Your task to perform on an android device: allow notifications from all sites in the chrome app Image 0: 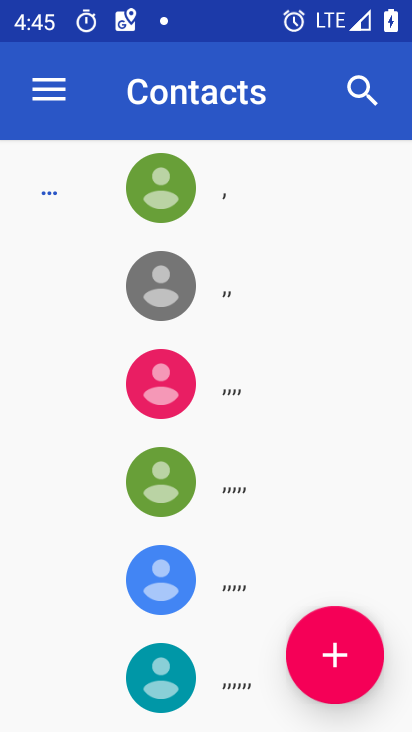
Step 0: press back button
Your task to perform on an android device: allow notifications from all sites in the chrome app Image 1: 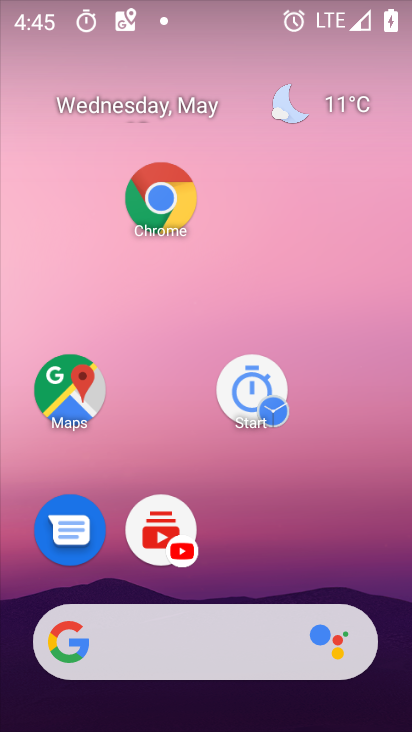
Step 1: drag from (309, 724) to (219, 336)
Your task to perform on an android device: allow notifications from all sites in the chrome app Image 2: 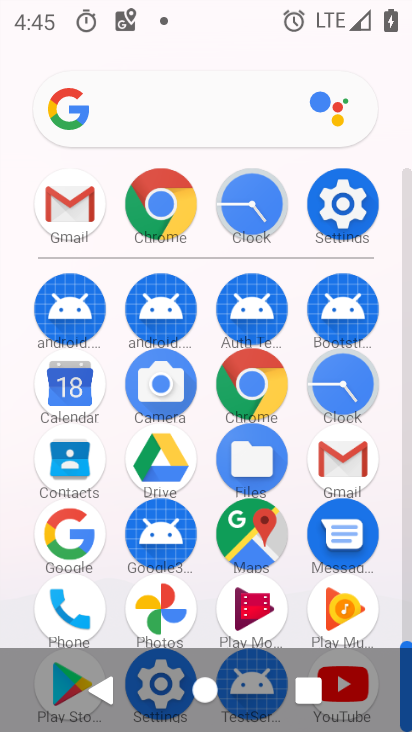
Step 2: click (242, 387)
Your task to perform on an android device: allow notifications from all sites in the chrome app Image 3: 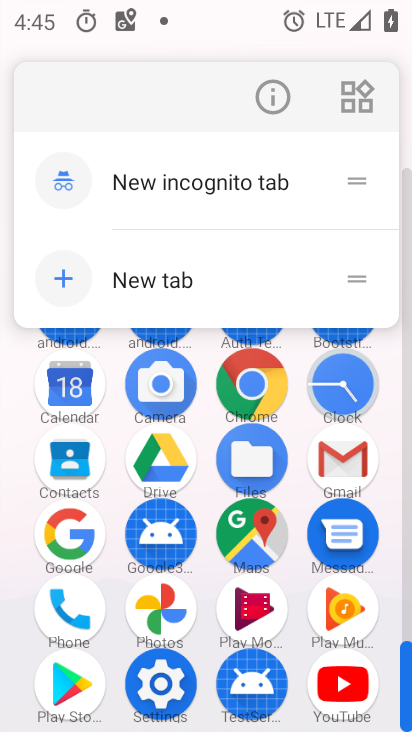
Step 3: click (243, 380)
Your task to perform on an android device: allow notifications from all sites in the chrome app Image 4: 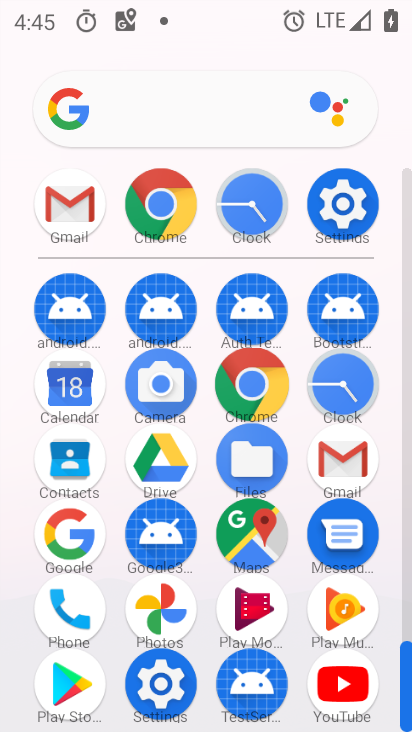
Step 4: click (247, 377)
Your task to perform on an android device: allow notifications from all sites in the chrome app Image 5: 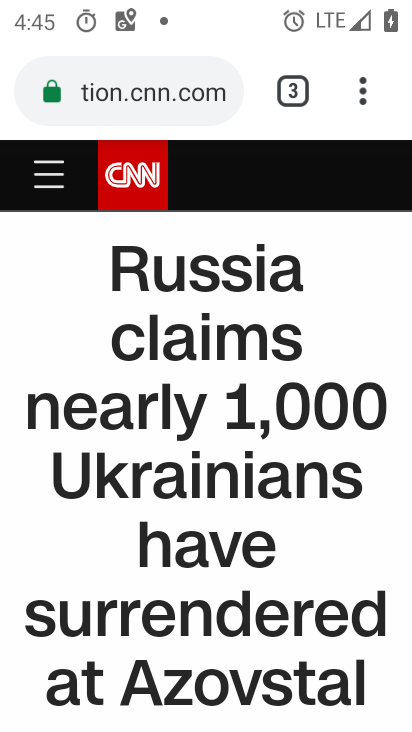
Step 5: drag from (356, 91) to (88, 566)
Your task to perform on an android device: allow notifications from all sites in the chrome app Image 6: 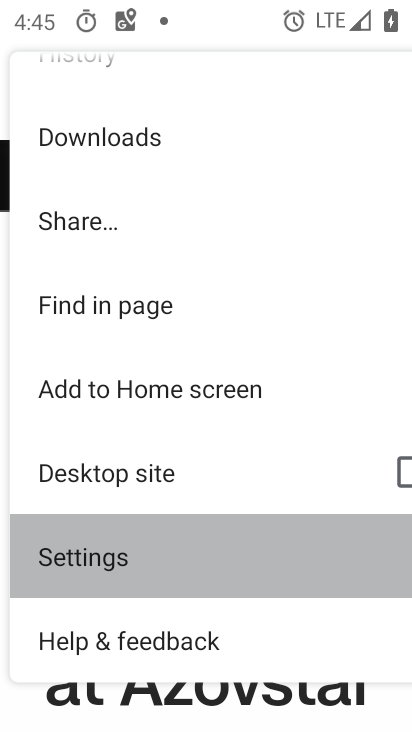
Step 6: click (93, 562)
Your task to perform on an android device: allow notifications from all sites in the chrome app Image 7: 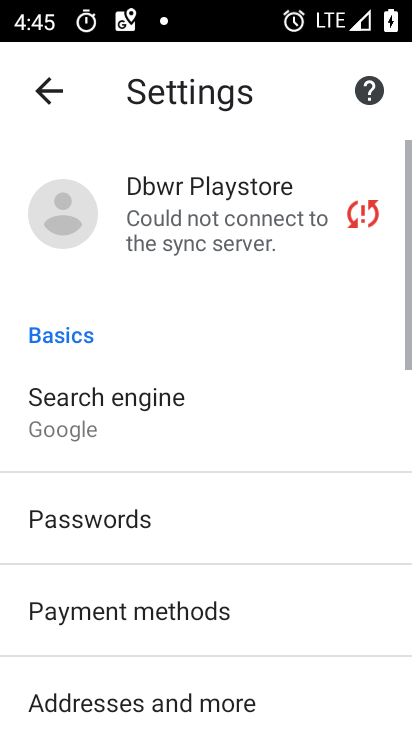
Step 7: drag from (168, 560) to (153, 97)
Your task to perform on an android device: allow notifications from all sites in the chrome app Image 8: 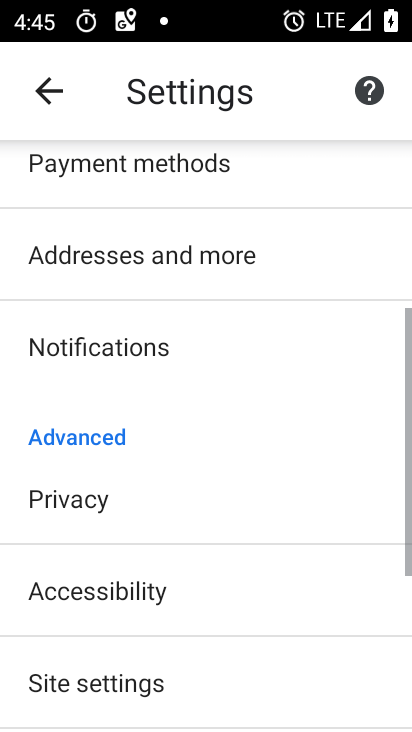
Step 8: drag from (206, 516) to (209, 77)
Your task to perform on an android device: allow notifications from all sites in the chrome app Image 9: 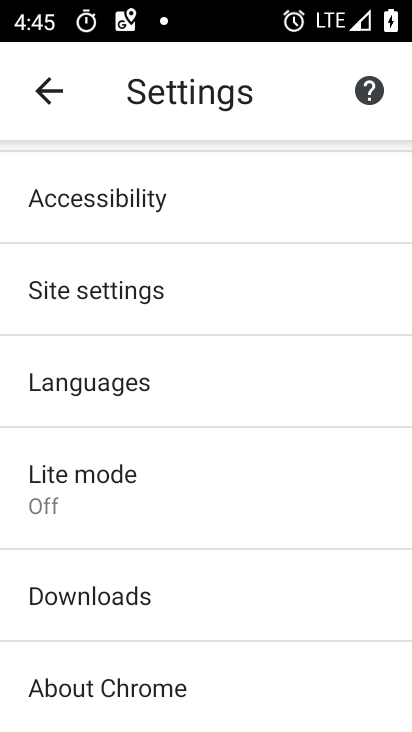
Step 9: click (71, 292)
Your task to perform on an android device: allow notifications from all sites in the chrome app Image 10: 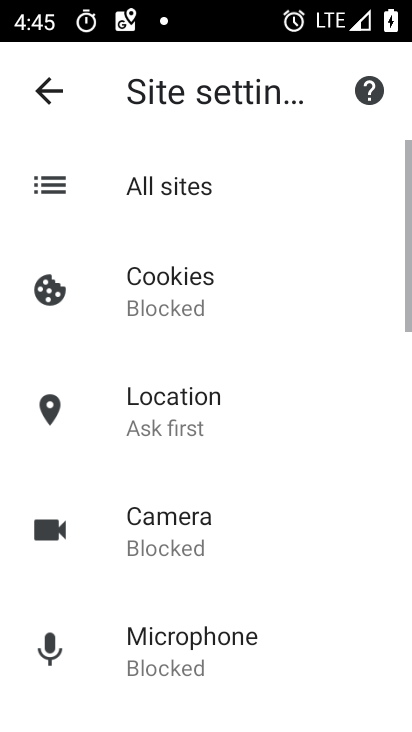
Step 10: click (165, 159)
Your task to perform on an android device: allow notifications from all sites in the chrome app Image 11: 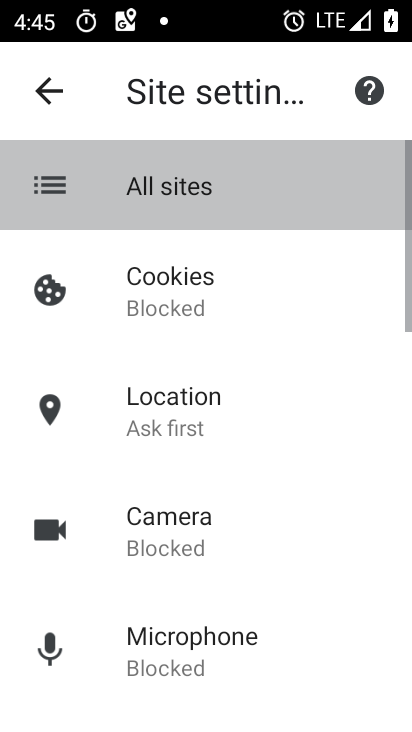
Step 11: click (171, 180)
Your task to perform on an android device: allow notifications from all sites in the chrome app Image 12: 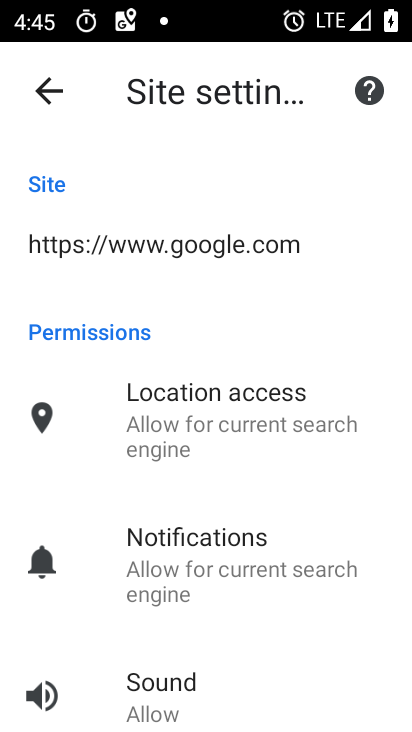
Step 12: task complete